Your task to perform on an android device: Go to wifi settings Image 0: 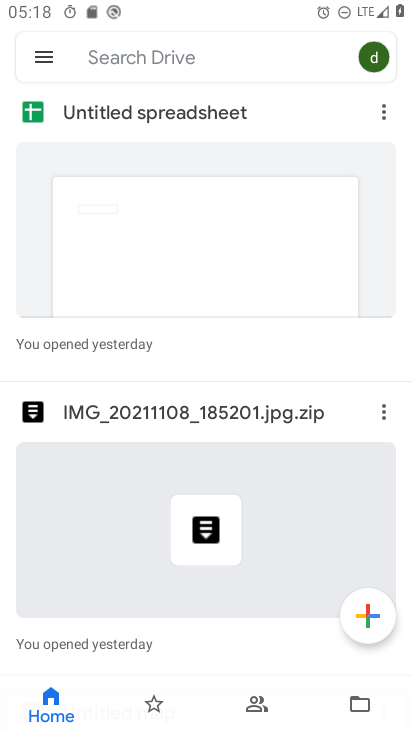
Step 0: press home button
Your task to perform on an android device: Go to wifi settings Image 1: 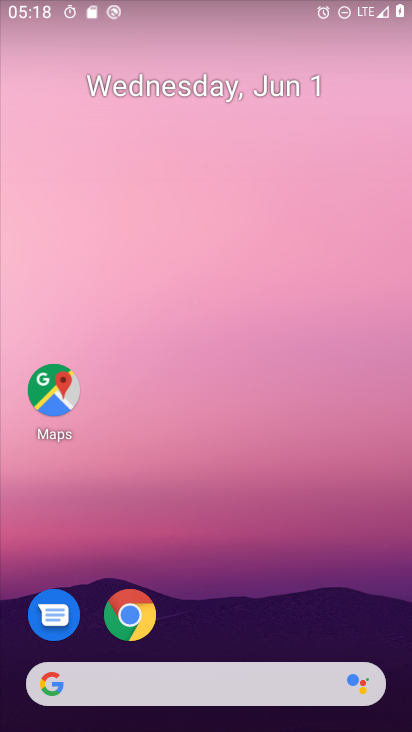
Step 1: drag from (252, 524) to (291, 4)
Your task to perform on an android device: Go to wifi settings Image 2: 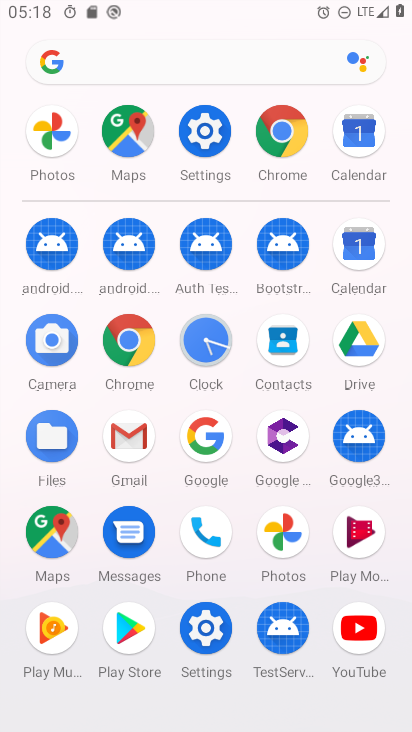
Step 2: click (205, 137)
Your task to perform on an android device: Go to wifi settings Image 3: 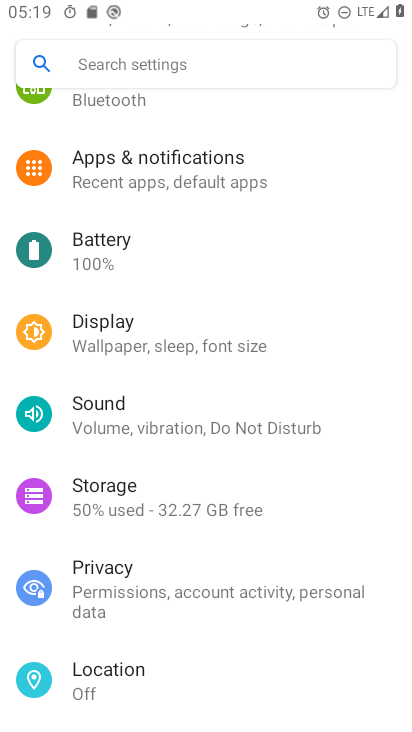
Step 3: drag from (150, 189) to (202, 652)
Your task to perform on an android device: Go to wifi settings Image 4: 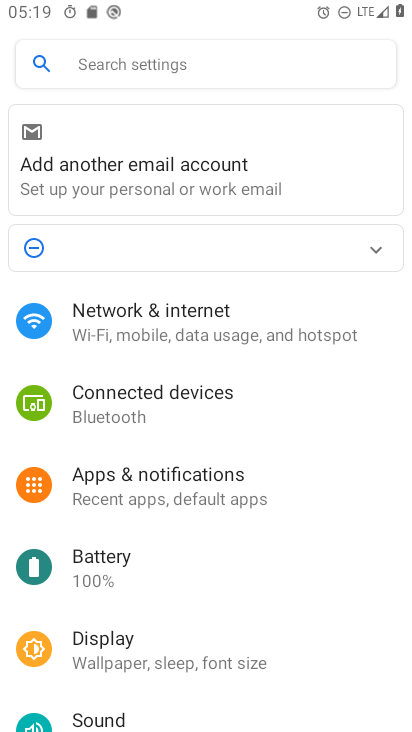
Step 4: click (188, 312)
Your task to perform on an android device: Go to wifi settings Image 5: 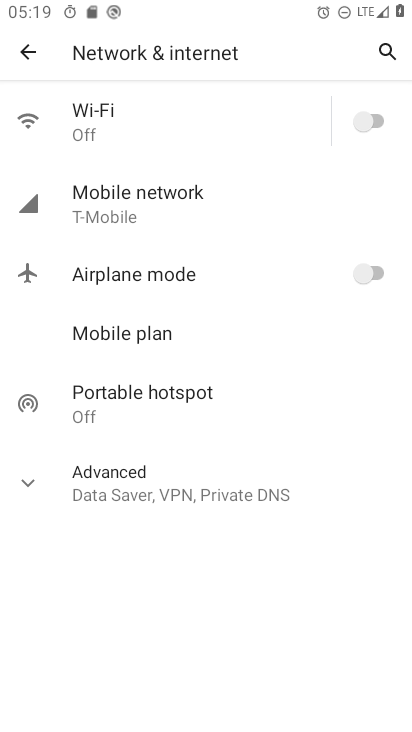
Step 5: click (161, 123)
Your task to perform on an android device: Go to wifi settings Image 6: 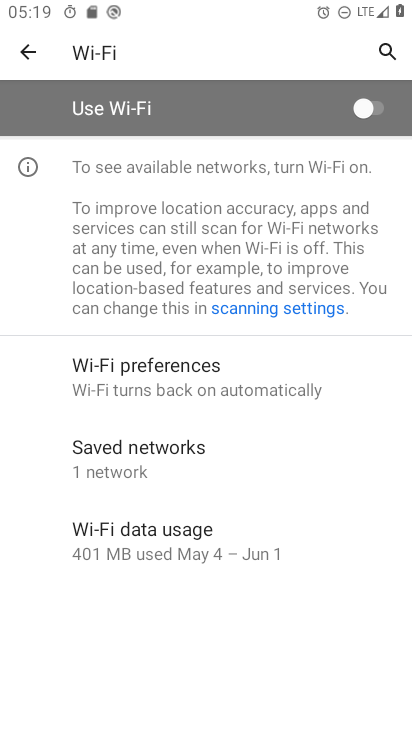
Step 6: task complete